Your task to perform on an android device: snooze an email in the gmail app Image 0: 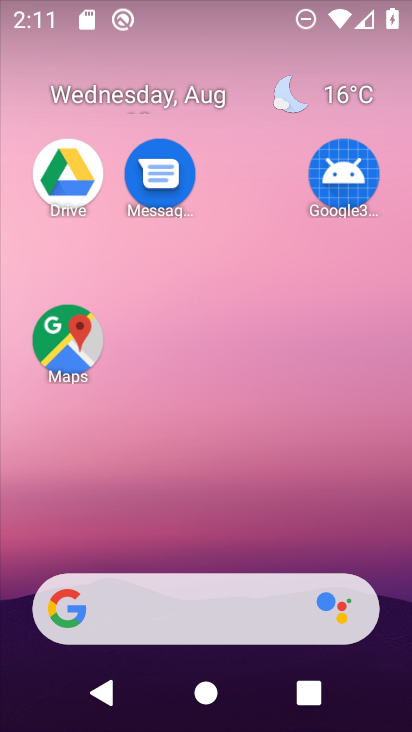
Step 0: drag from (160, 553) to (196, 30)
Your task to perform on an android device: snooze an email in the gmail app Image 1: 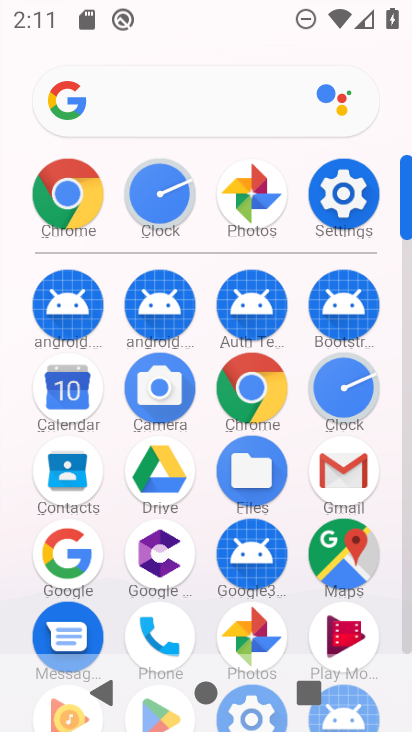
Step 1: click (330, 448)
Your task to perform on an android device: snooze an email in the gmail app Image 2: 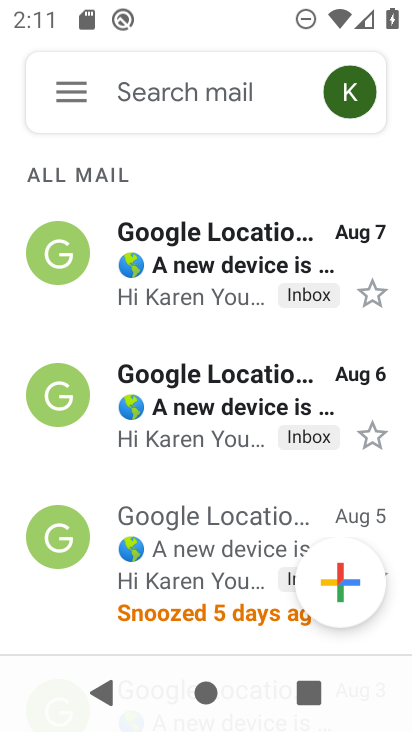
Step 2: click (57, 243)
Your task to perform on an android device: snooze an email in the gmail app Image 3: 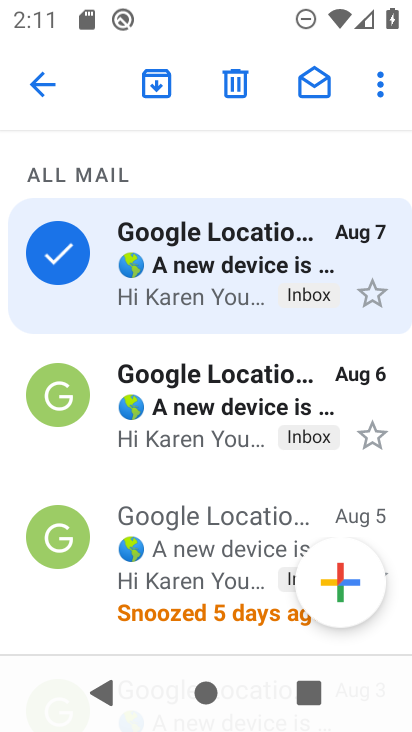
Step 3: click (393, 73)
Your task to perform on an android device: snooze an email in the gmail app Image 4: 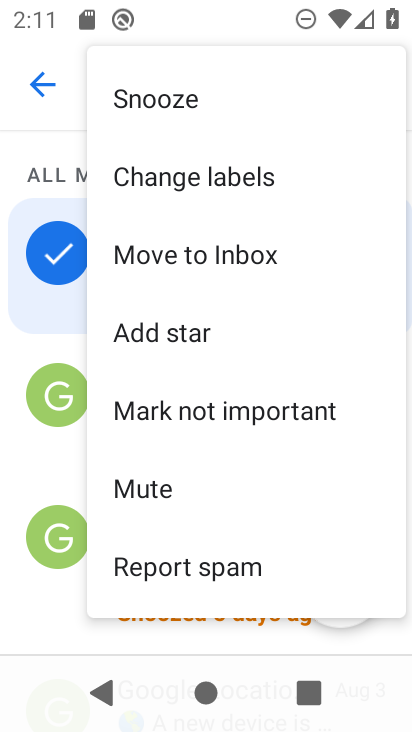
Step 4: click (244, 92)
Your task to perform on an android device: snooze an email in the gmail app Image 5: 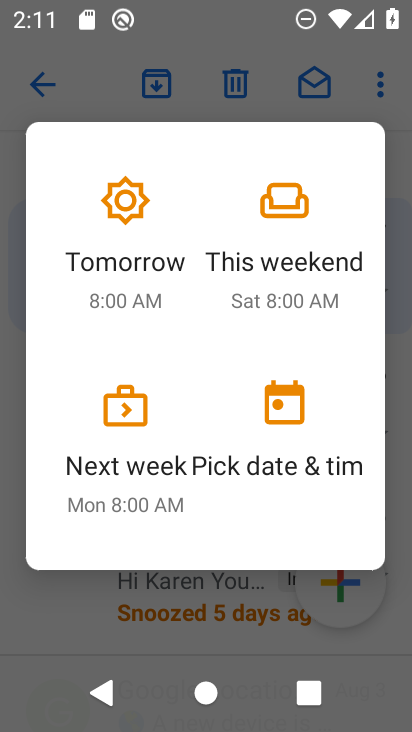
Step 5: click (258, 272)
Your task to perform on an android device: snooze an email in the gmail app Image 6: 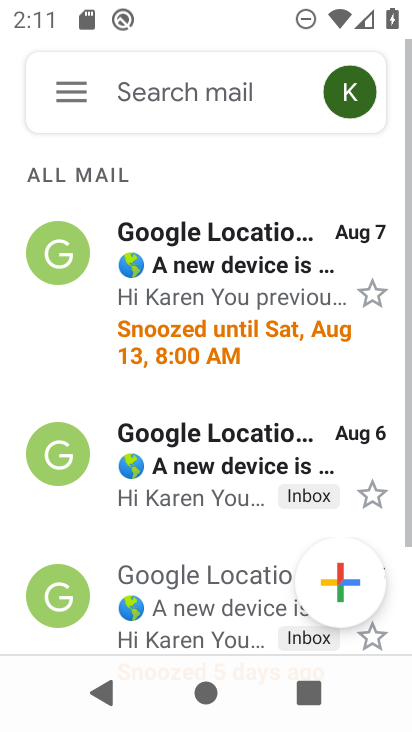
Step 6: task complete